Your task to perform on an android device: Open settings Image 0: 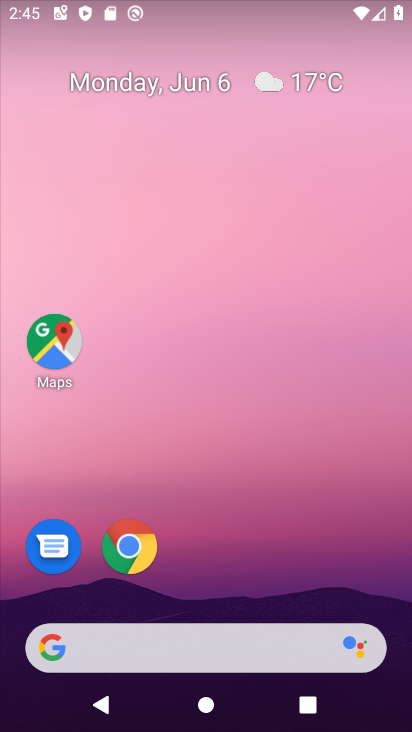
Step 0: drag from (273, 566) to (257, 248)
Your task to perform on an android device: Open settings Image 1: 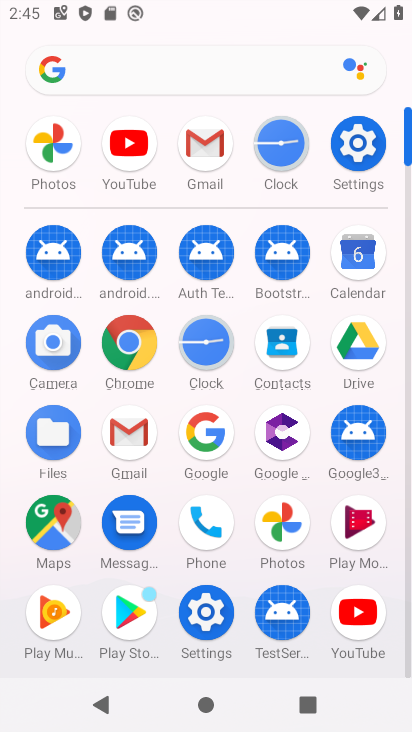
Step 1: click (355, 147)
Your task to perform on an android device: Open settings Image 2: 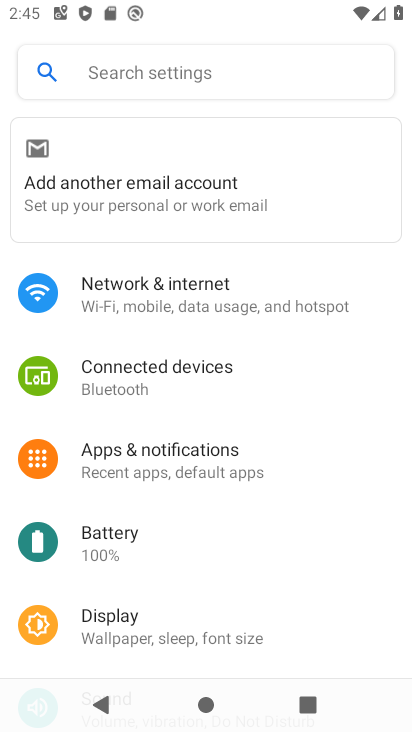
Step 2: task complete